Your task to perform on an android device: delete browsing data in the chrome app Image 0: 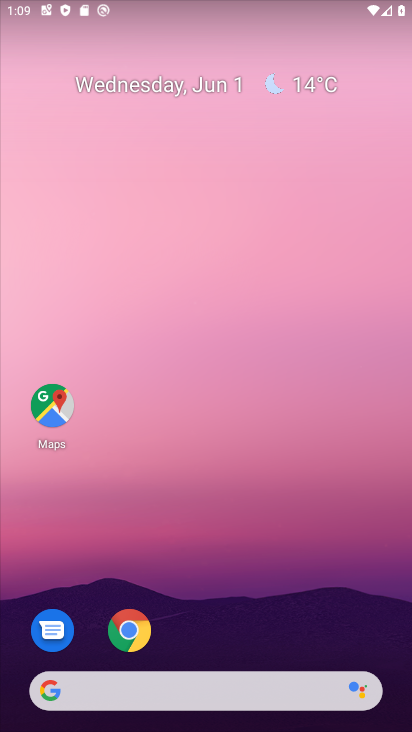
Step 0: click (131, 626)
Your task to perform on an android device: delete browsing data in the chrome app Image 1: 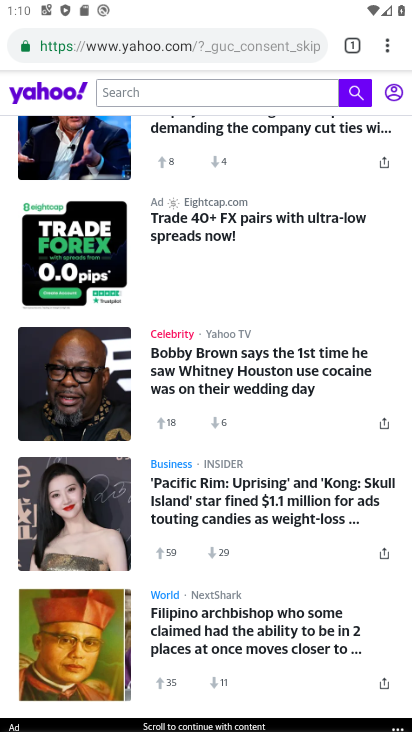
Step 1: click (382, 42)
Your task to perform on an android device: delete browsing data in the chrome app Image 2: 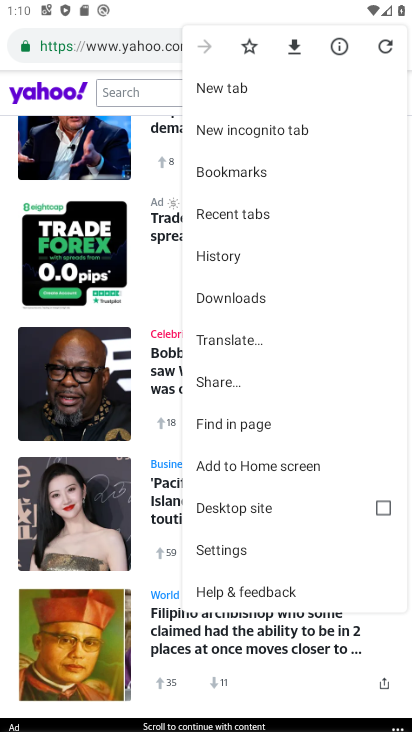
Step 2: click (252, 252)
Your task to perform on an android device: delete browsing data in the chrome app Image 3: 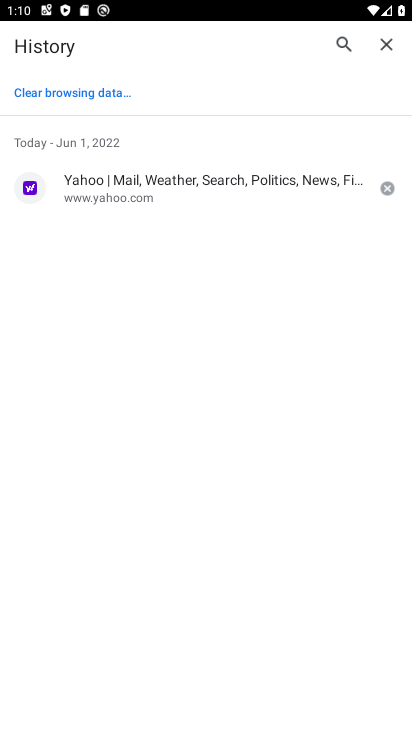
Step 3: click (81, 91)
Your task to perform on an android device: delete browsing data in the chrome app Image 4: 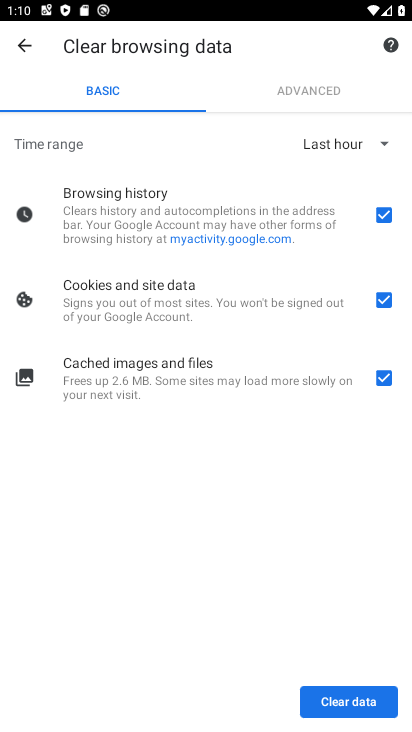
Step 4: click (345, 701)
Your task to perform on an android device: delete browsing data in the chrome app Image 5: 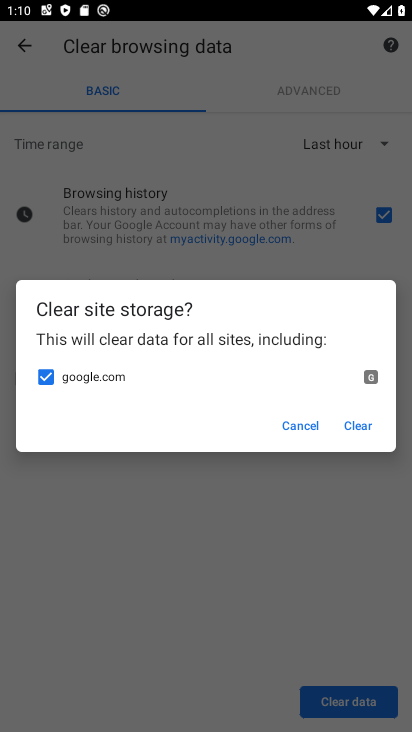
Step 5: click (352, 425)
Your task to perform on an android device: delete browsing data in the chrome app Image 6: 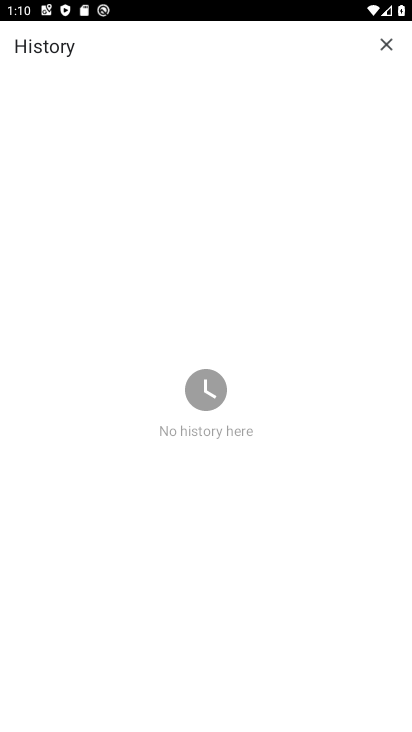
Step 6: task complete